Your task to perform on an android device: Open accessibility settings Image 0: 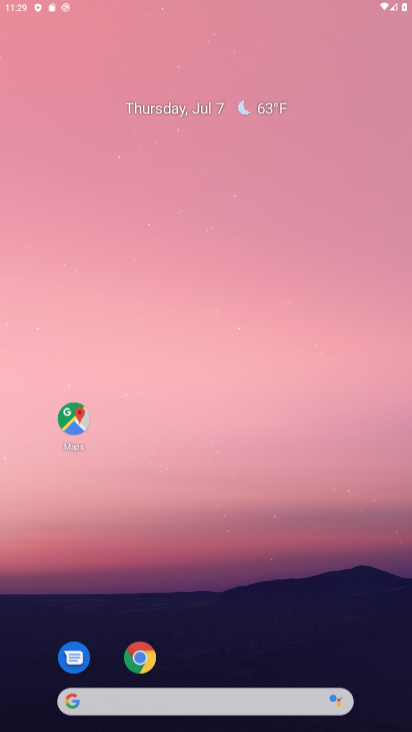
Step 0: click (360, 263)
Your task to perform on an android device: Open accessibility settings Image 1: 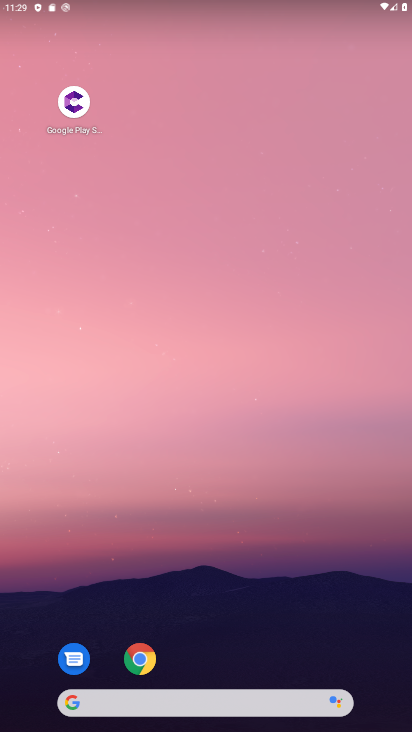
Step 1: drag from (204, 621) to (261, 0)
Your task to perform on an android device: Open accessibility settings Image 2: 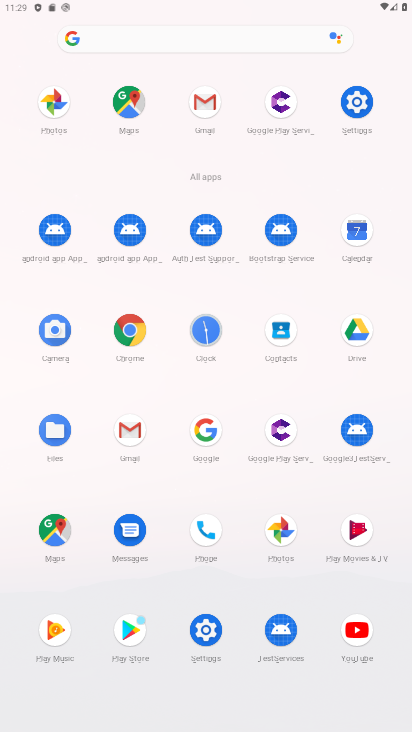
Step 2: click (213, 640)
Your task to perform on an android device: Open accessibility settings Image 3: 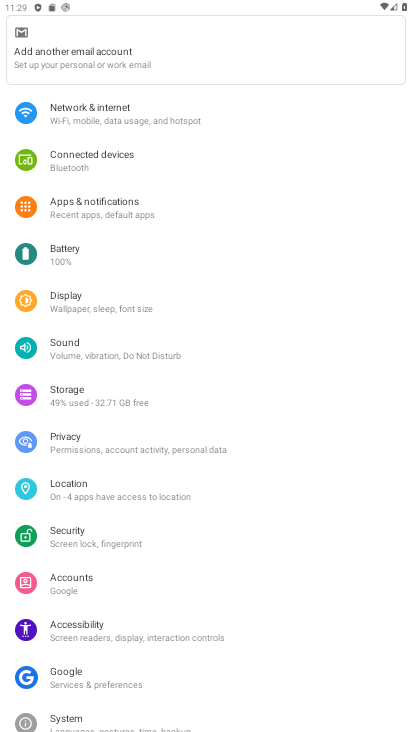
Step 3: click (127, 632)
Your task to perform on an android device: Open accessibility settings Image 4: 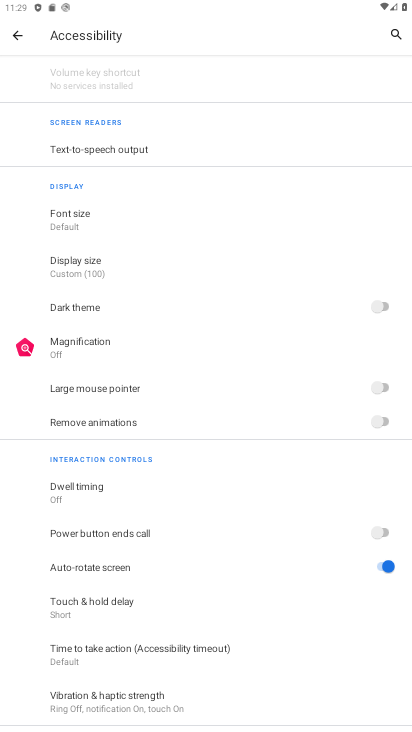
Step 4: task complete